Your task to perform on an android device: change the clock display to digital Image 0: 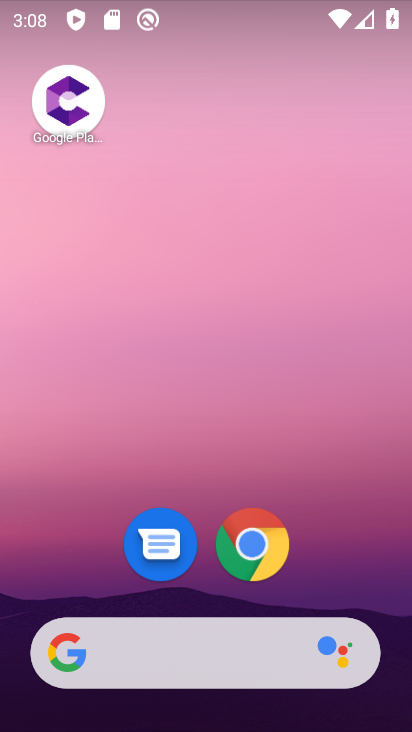
Step 0: drag from (335, 311) to (330, 110)
Your task to perform on an android device: change the clock display to digital Image 1: 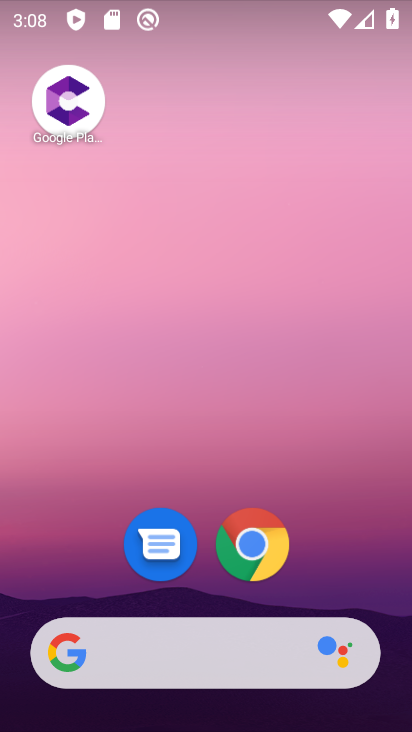
Step 1: drag from (373, 492) to (327, 44)
Your task to perform on an android device: change the clock display to digital Image 2: 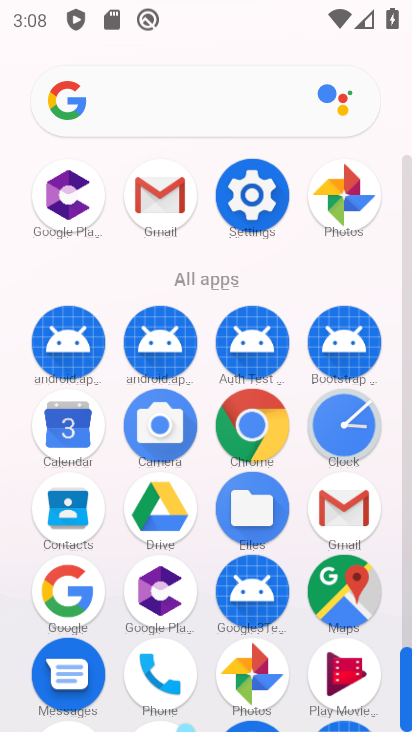
Step 2: click (407, 601)
Your task to perform on an android device: change the clock display to digital Image 3: 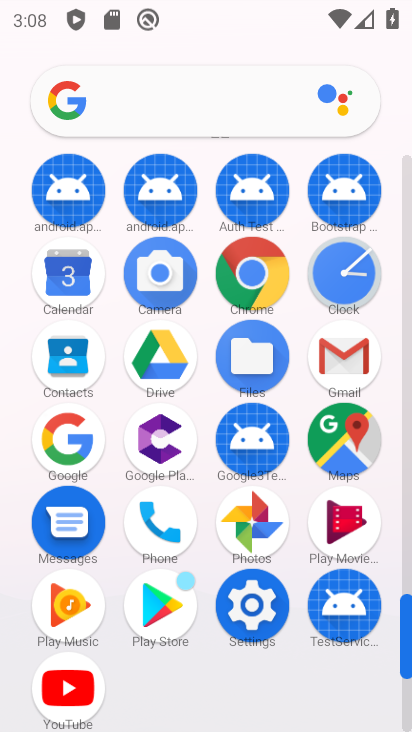
Step 3: click (338, 271)
Your task to perform on an android device: change the clock display to digital Image 4: 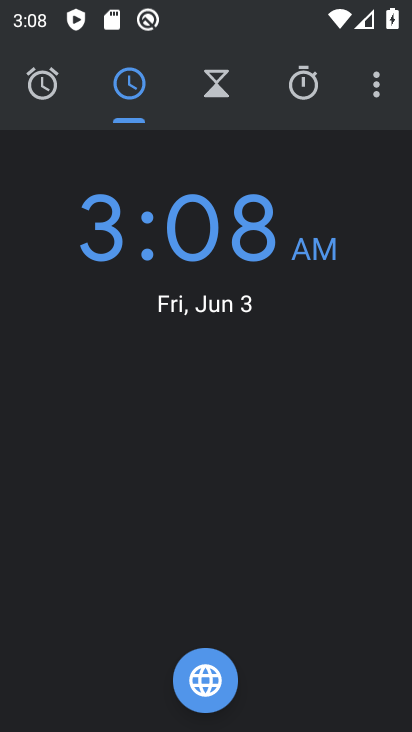
Step 4: click (373, 93)
Your task to perform on an android device: change the clock display to digital Image 5: 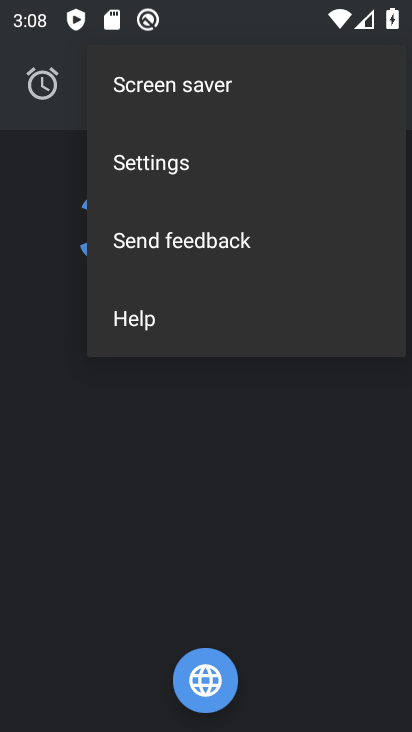
Step 5: click (150, 152)
Your task to perform on an android device: change the clock display to digital Image 6: 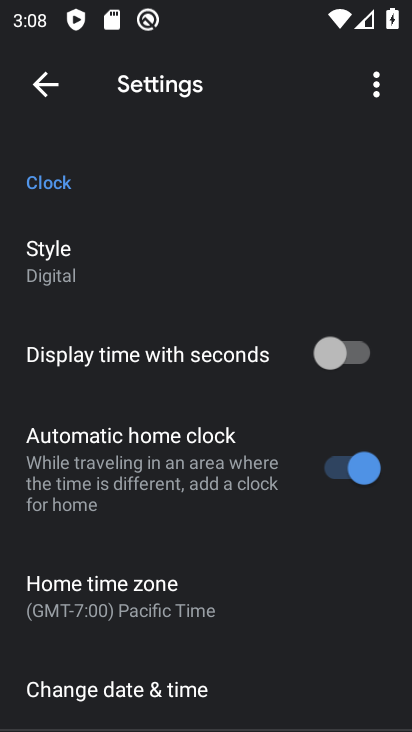
Step 6: task complete